Your task to perform on an android device: Search for sushi restaurants on Maps Image 0: 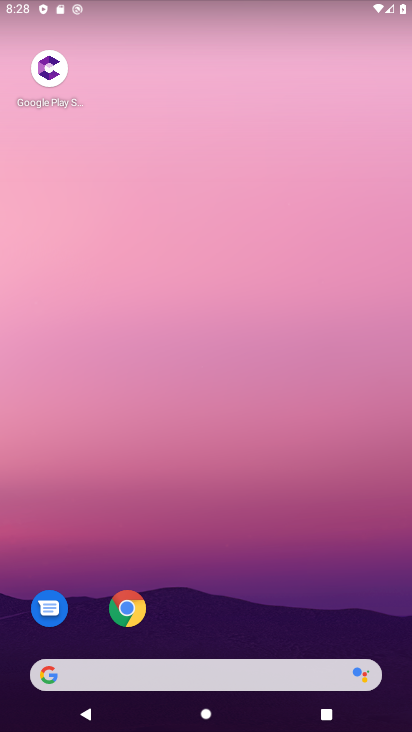
Step 0: drag from (19, 363) to (378, 441)
Your task to perform on an android device: Search for sushi restaurants on Maps Image 1: 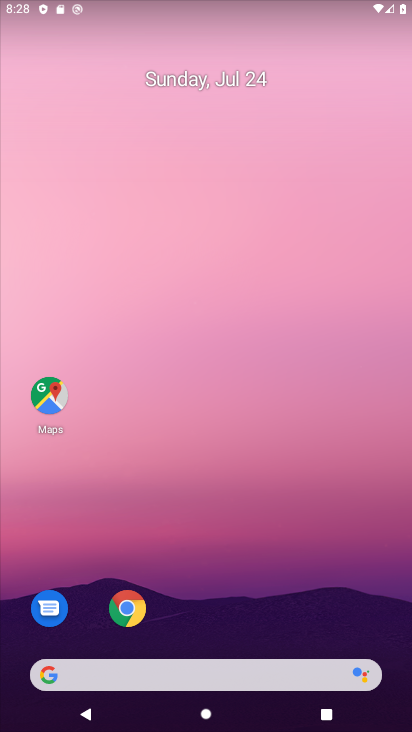
Step 1: click (51, 388)
Your task to perform on an android device: Search for sushi restaurants on Maps Image 2: 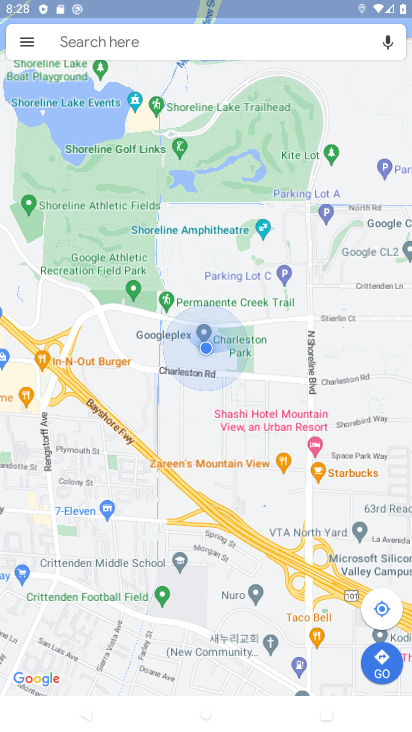
Step 2: click (259, 41)
Your task to perform on an android device: Search for sushi restaurants on Maps Image 3: 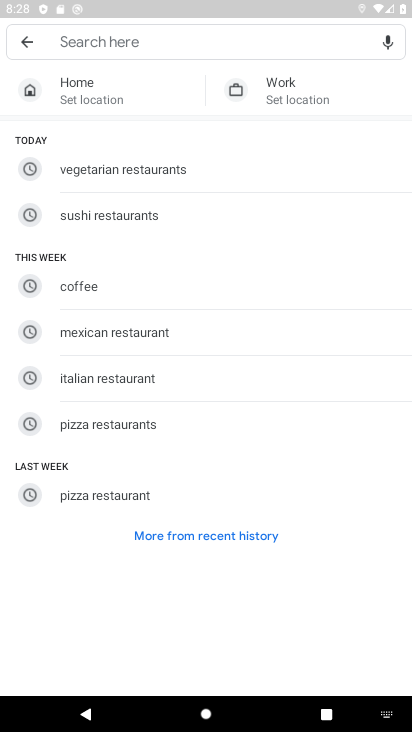
Step 3: type "sushi restaurants"
Your task to perform on an android device: Search for sushi restaurants on Maps Image 4: 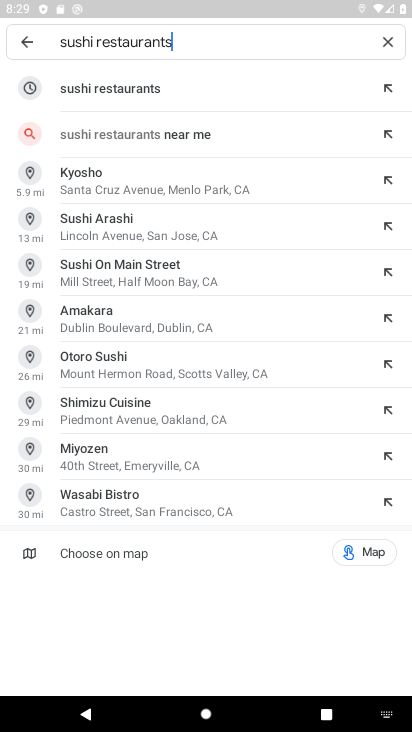
Step 4: click (140, 94)
Your task to perform on an android device: Search for sushi restaurants on Maps Image 5: 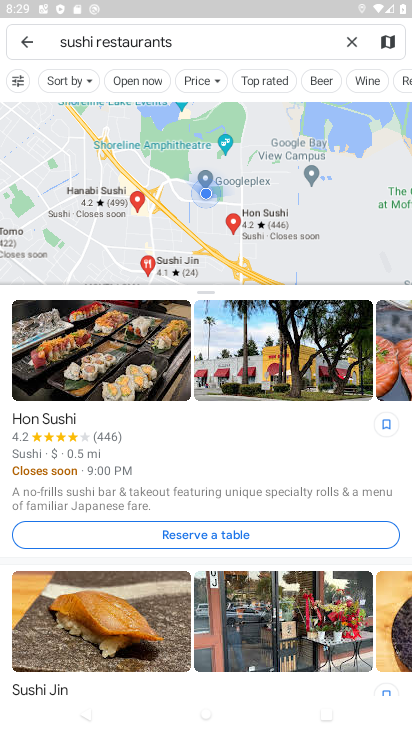
Step 5: task complete